Your task to perform on an android device: visit the assistant section in the google photos Image 0: 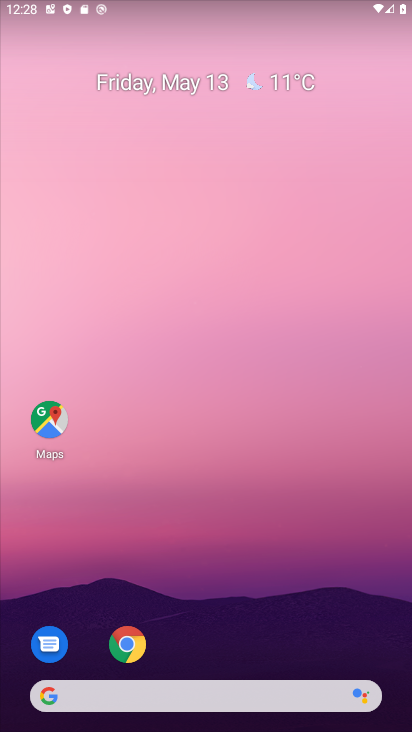
Step 0: drag from (218, 710) to (214, 145)
Your task to perform on an android device: visit the assistant section in the google photos Image 1: 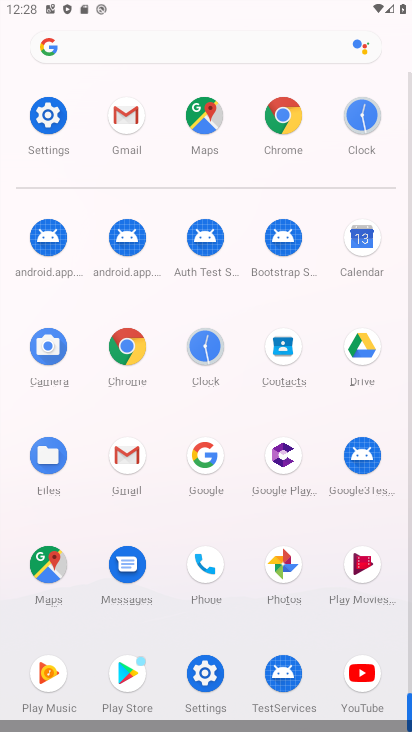
Step 1: click (285, 563)
Your task to perform on an android device: visit the assistant section in the google photos Image 2: 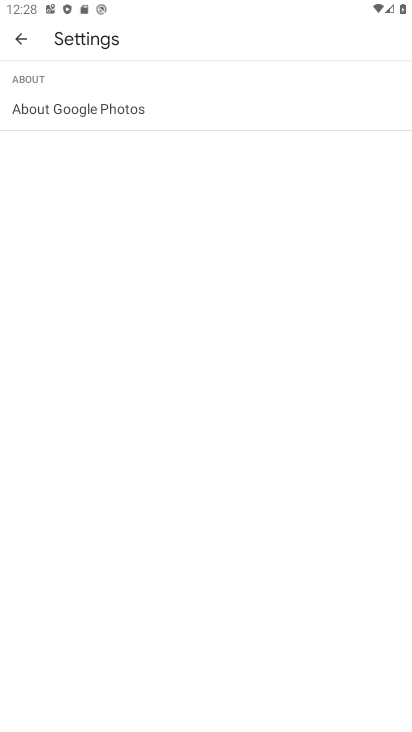
Step 2: click (18, 37)
Your task to perform on an android device: visit the assistant section in the google photos Image 3: 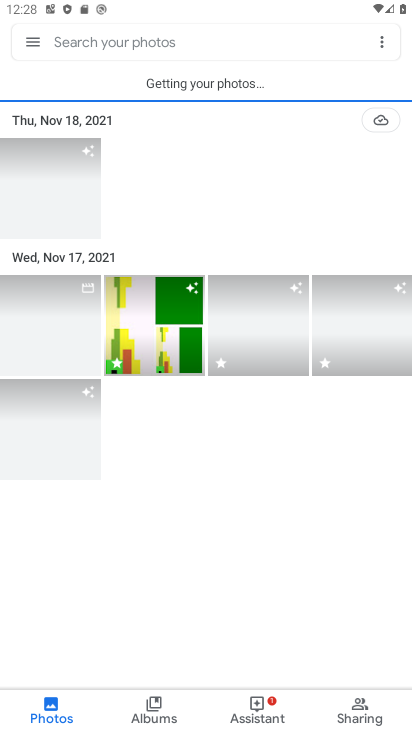
Step 3: click (251, 708)
Your task to perform on an android device: visit the assistant section in the google photos Image 4: 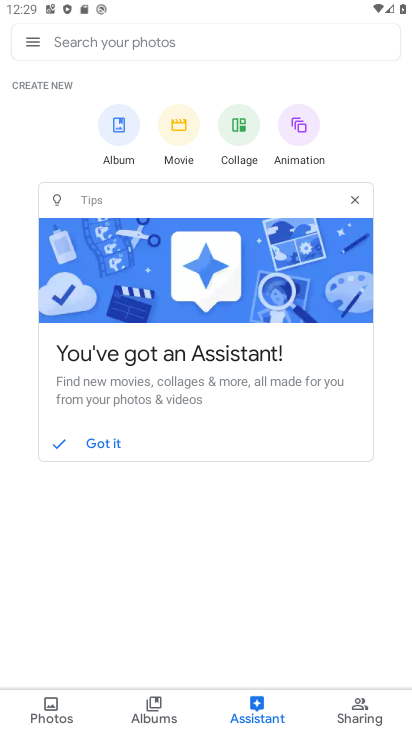
Step 4: task complete